Your task to perform on an android device: Open Google Chrome and click the shortcut for Amazon.com Image 0: 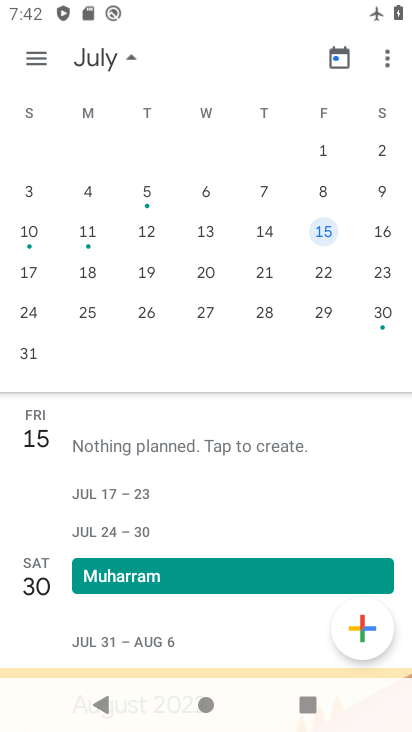
Step 0: press back button
Your task to perform on an android device: Open Google Chrome and click the shortcut for Amazon.com Image 1: 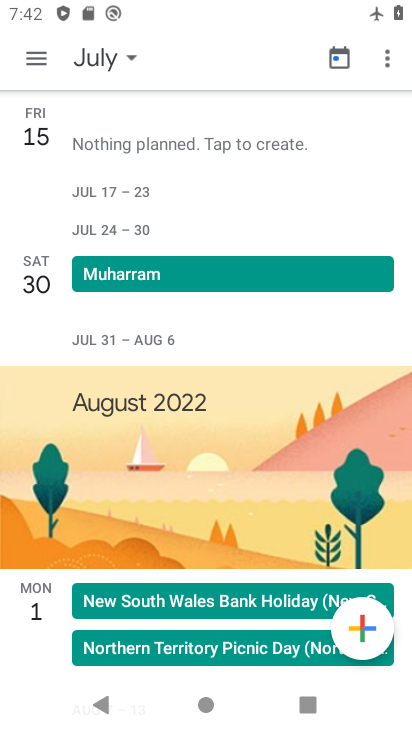
Step 1: press back button
Your task to perform on an android device: Open Google Chrome and click the shortcut for Amazon.com Image 2: 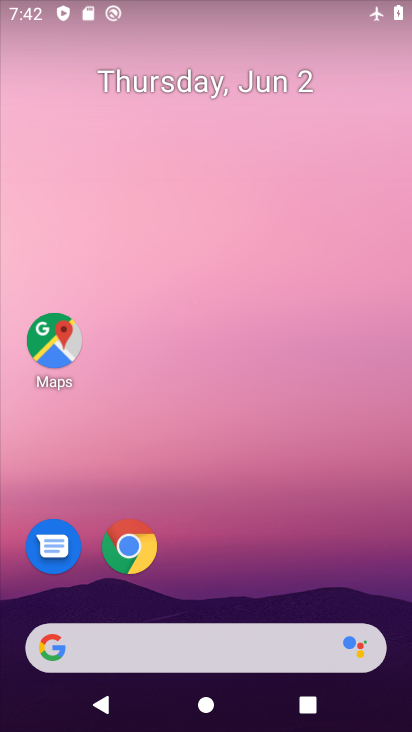
Step 2: drag from (252, 690) to (151, 64)
Your task to perform on an android device: Open Google Chrome and click the shortcut for Amazon.com Image 3: 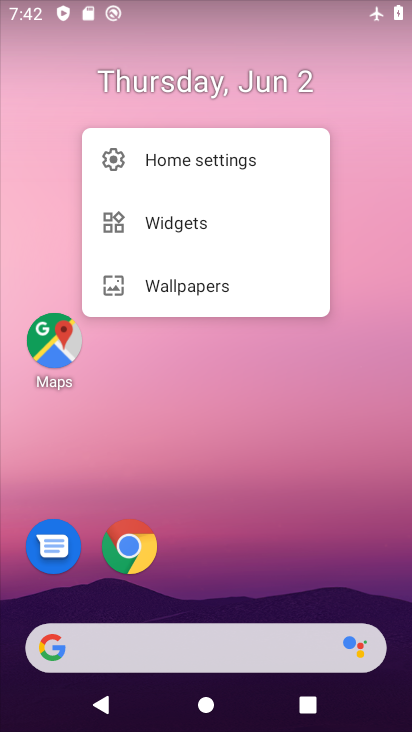
Step 3: drag from (253, 676) to (232, 203)
Your task to perform on an android device: Open Google Chrome and click the shortcut for Amazon.com Image 4: 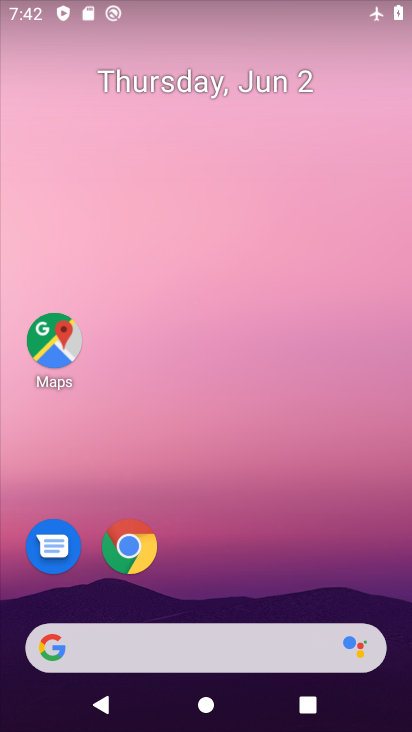
Step 4: drag from (292, 701) to (284, 52)
Your task to perform on an android device: Open Google Chrome and click the shortcut for Amazon.com Image 5: 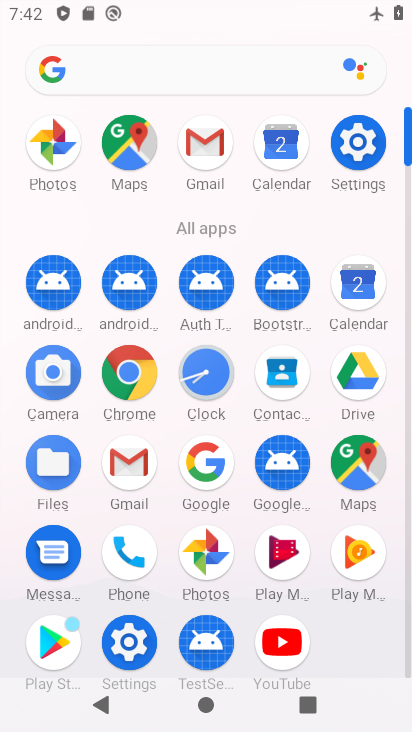
Step 5: drag from (237, 279) to (182, 141)
Your task to perform on an android device: Open Google Chrome and click the shortcut for Amazon.com Image 6: 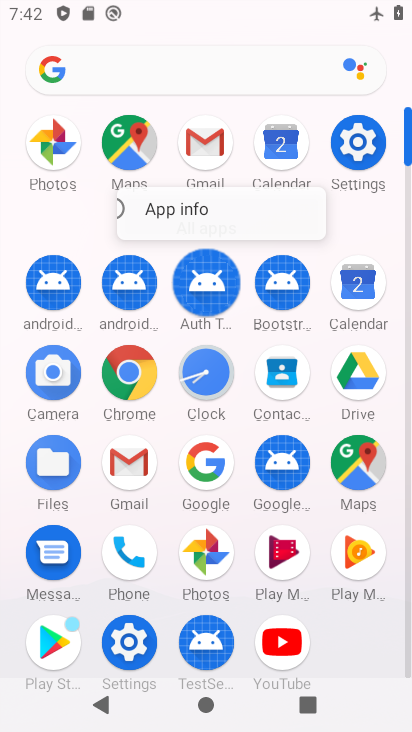
Step 6: drag from (259, 596) to (269, 21)
Your task to perform on an android device: Open Google Chrome and click the shortcut for Amazon.com Image 7: 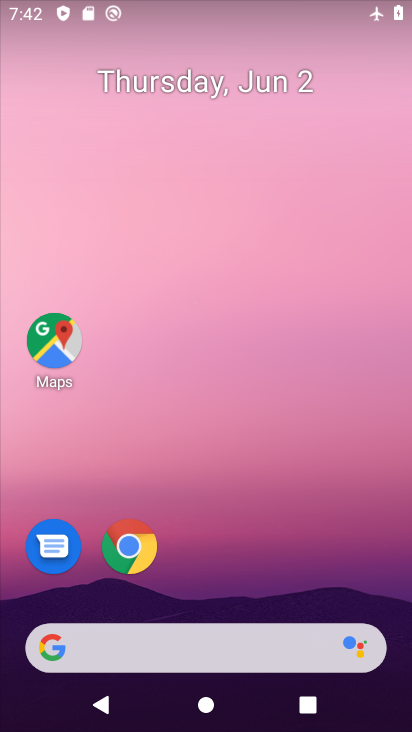
Step 7: click (125, 381)
Your task to perform on an android device: Open Google Chrome and click the shortcut for Amazon.com Image 8: 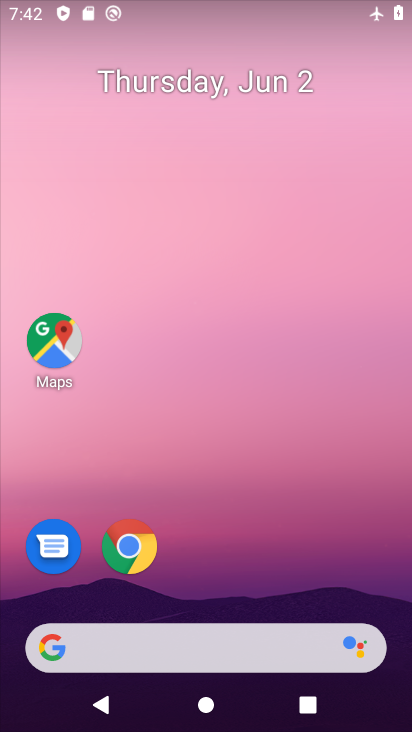
Step 8: drag from (268, 708) to (282, 234)
Your task to perform on an android device: Open Google Chrome and click the shortcut for Amazon.com Image 9: 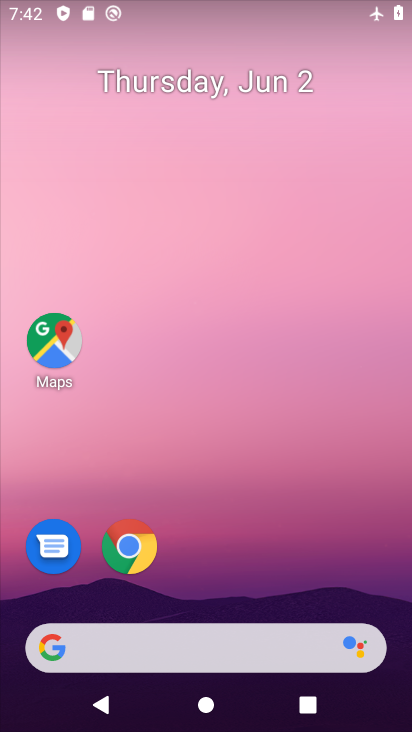
Step 9: drag from (238, 707) to (115, 174)
Your task to perform on an android device: Open Google Chrome and click the shortcut for Amazon.com Image 10: 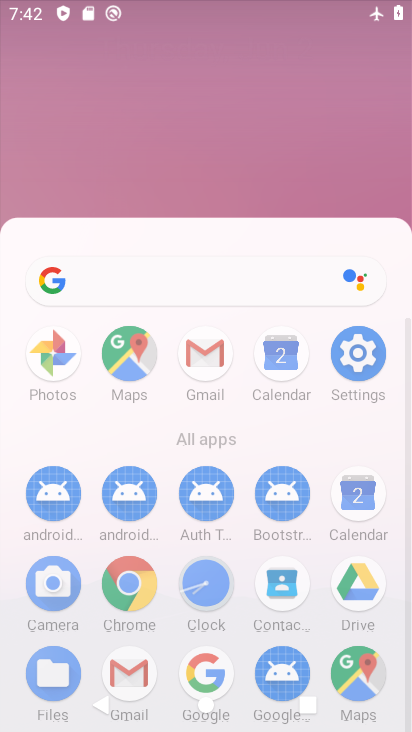
Step 10: drag from (185, 537) to (133, 223)
Your task to perform on an android device: Open Google Chrome and click the shortcut for Amazon.com Image 11: 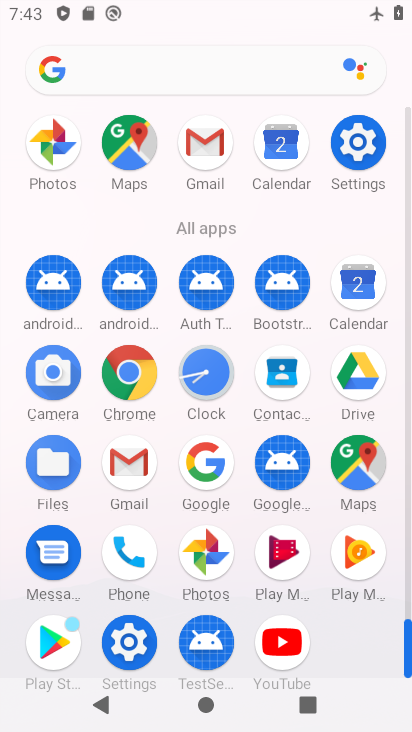
Step 11: drag from (267, 613) to (196, 118)
Your task to perform on an android device: Open Google Chrome and click the shortcut for Amazon.com Image 12: 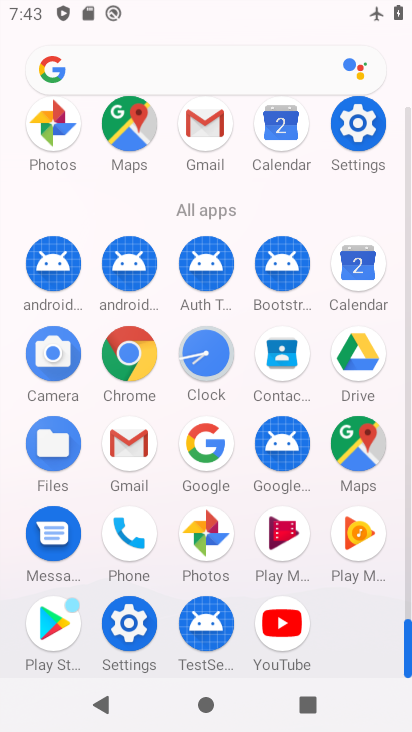
Step 12: drag from (215, 422) to (212, 44)
Your task to perform on an android device: Open Google Chrome and click the shortcut for Amazon.com Image 13: 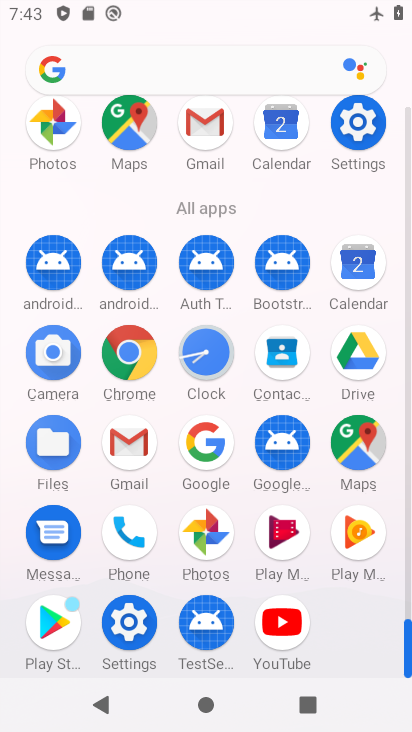
Step 13: click (123, 578)
Your task to perform on an android device: Open Google Chrome and click the shortcut for Amazon.com Image 14: 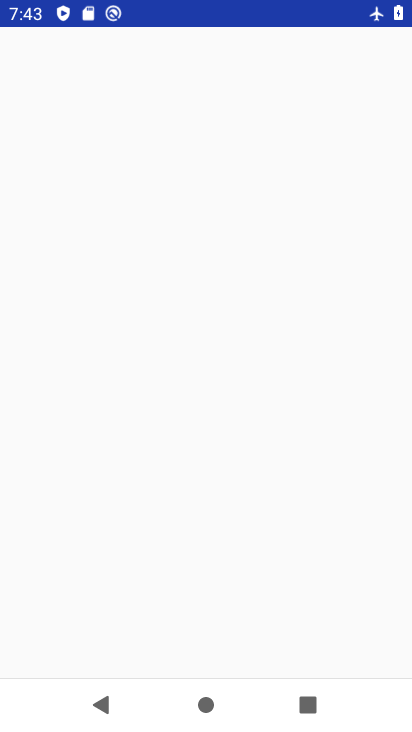
Step 14: click (138, 379)
Your task to perform on an android device: Open Google Chrome and click the shortcut for Amazon.com Image 15: 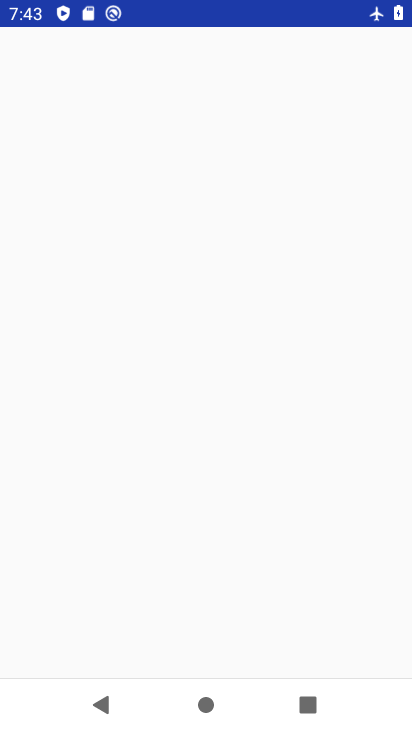
Step 15: click (128, 377)
Your task to perform on an android device: Open Google Chrome and click the shortcut for Amazon.com Image 16: 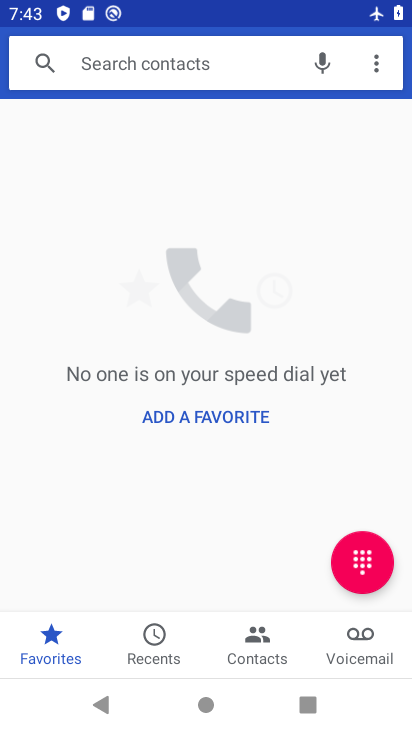
Step 16: click (125, 350)
Your task to perform on an android device: Open Google Chrome and click the shortcut for Amazon.com Image 17: 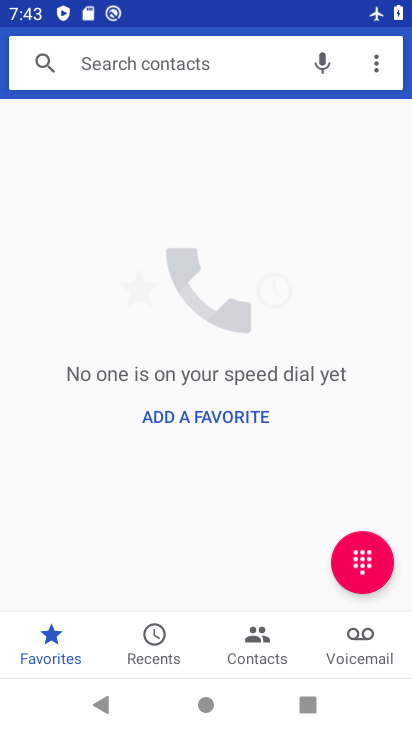
Step 17: press back button
Your task to perform on an android device: Open Google Chrome and click the shortcut for Amazon.com Image 18: 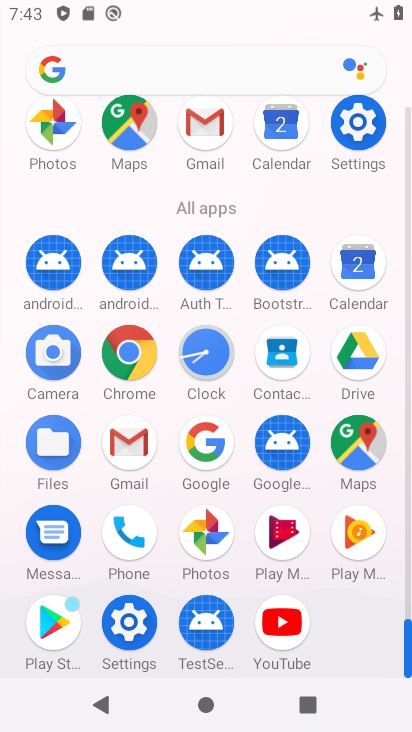
Step 18: click (134, 344)
Your task to perform on an android device: Open Google Chrome and click the shortcut for Amazon.com Image 19: 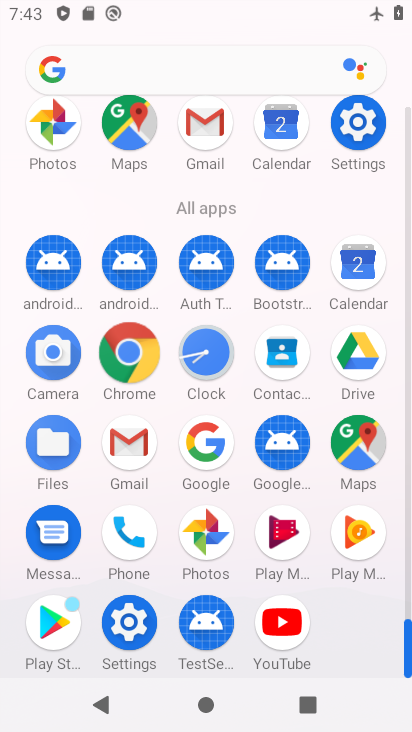
Step 19: click (132, 346)
Your task to perform on an android device: Open Google Chrome and click the shortcut for Amazon.com Image 20: 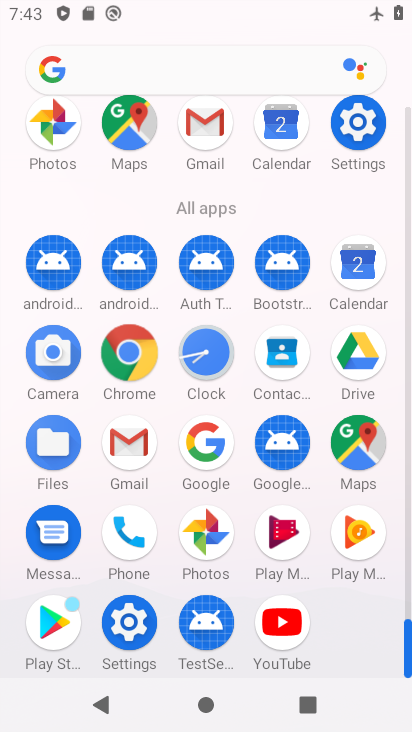
Step 20: click (136, 344)
Your task to perform on an android device: Open Google Chrome and click the shortcut for Amazon.com Image 21: 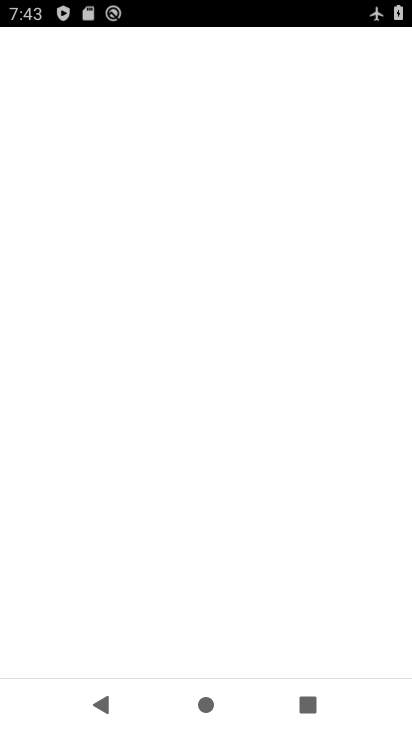
Step 21: click (139, 347)
Your task to perform on an android device: Open Google Chrome and click the shortcut for Amazon.com Image 22: 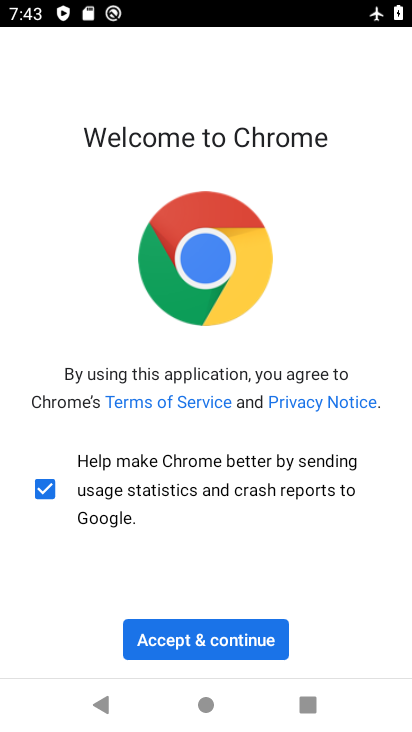
Step 22: click (212, 626)
Your task to perform on an android device: Open Google Chrome and click the shortcut for Amazon.com Image 23: 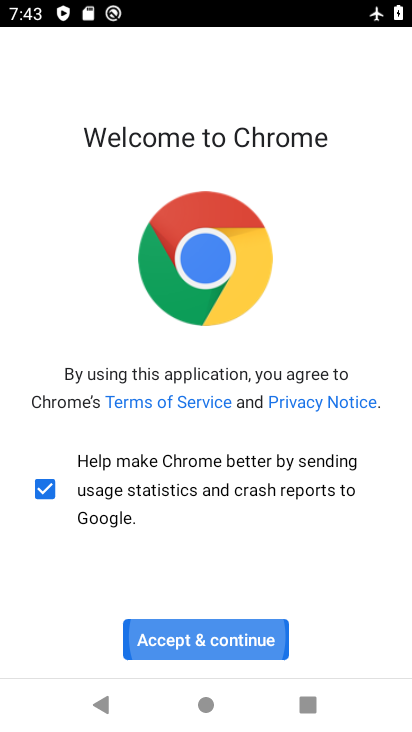
Step 23: click (223, 624)
Your task to perform on an android device: Open Google Chrome and click the shortcut for Amazon.com Image 24: 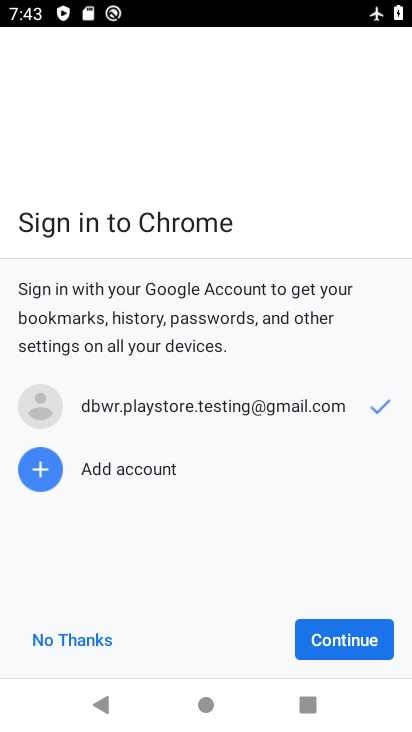
Step 24: click (220, 623)
Your task to perform on an android device: Open Google Chrome and click the shortcut for Amazon.com Image 25: 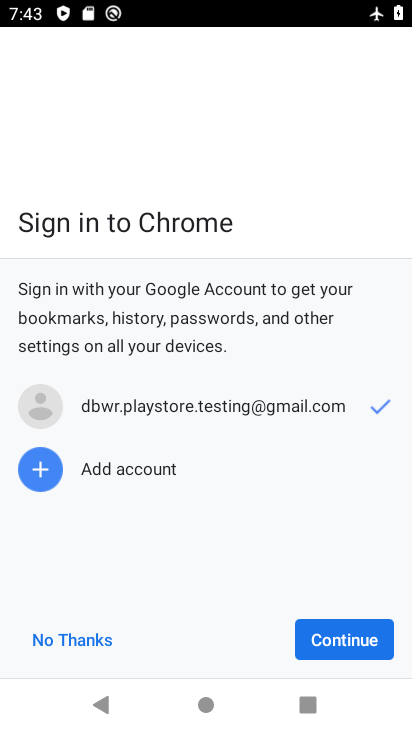
Step 25: click (217, 624)
Your task to perform on an android device: Open Google Chrome and click the shortcut for Amazon.com Image 26: 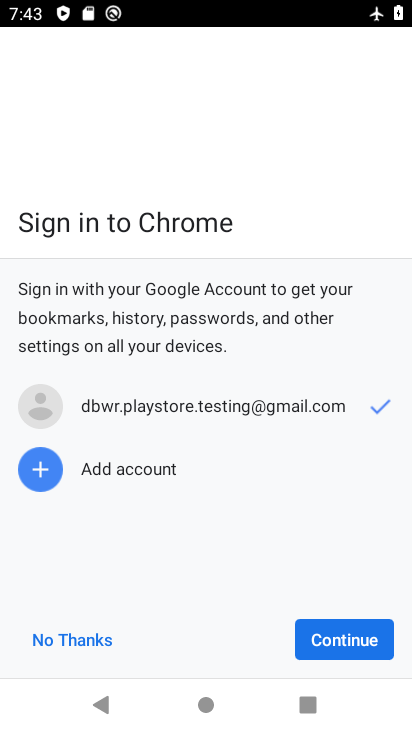
Step 26: click (210, 630)
Your task to perform on an android device: Open Google Chrome and click the shortcut for Amazon.com Image 27: 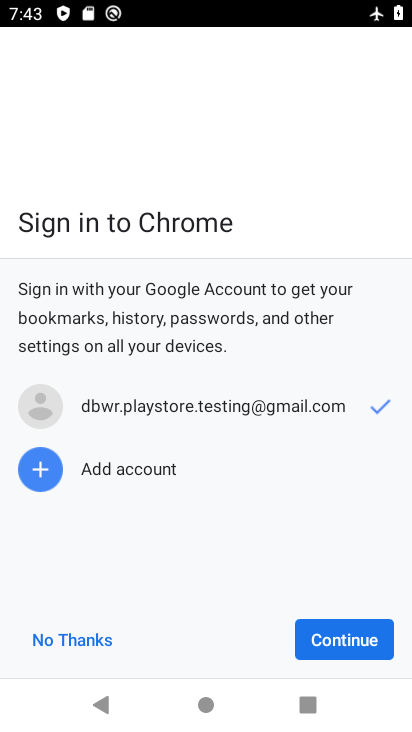
Step 27: click (311, 638)
Your task to perform on an android device: Open Google Chrome and click the shortcut for Amazon.com Image 28: 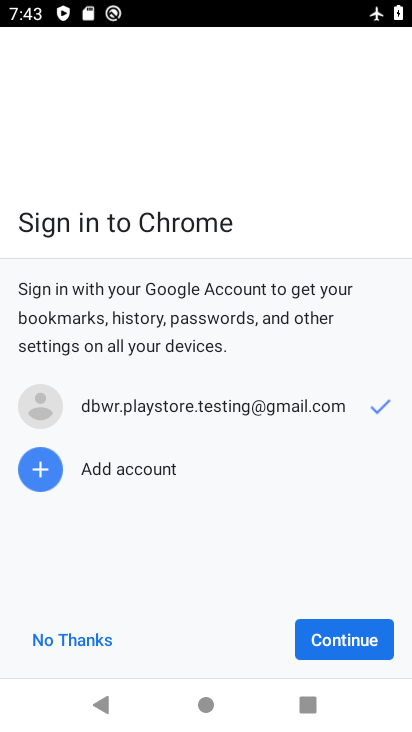
Step 28: click (313, 638)
Your task to perform on an android device: Open Google Chrome and click the shortcut for Amazon.com Image 29: 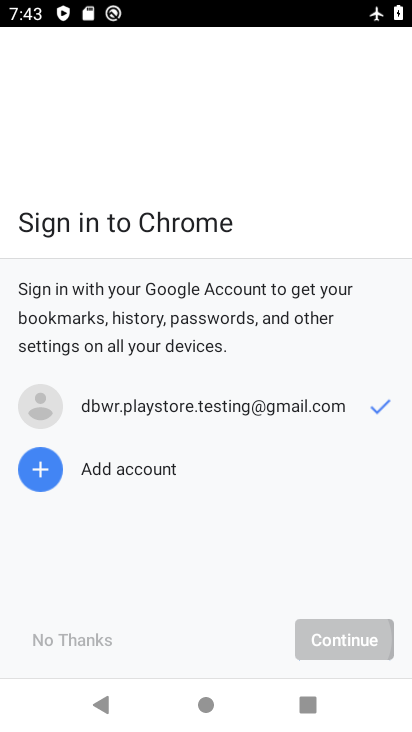
Step 29: click (320, 633)
Your task to perform on an android device: Open Google Chrome and click the shortcut for Amazon.com Image 30: 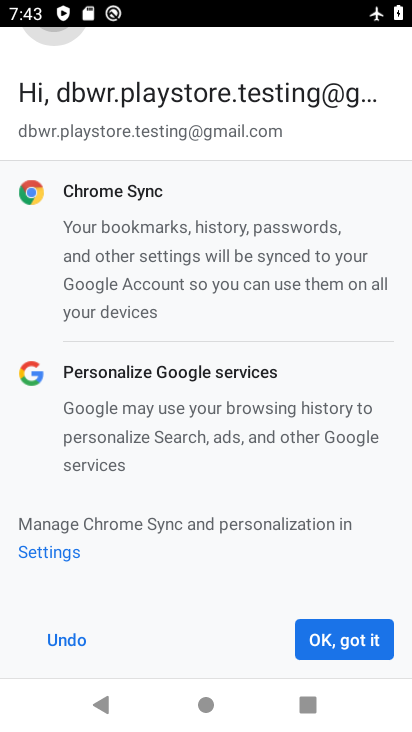
Step 30: click (336, 629)
Your task to perform on an android device: Open Google Chrome and click the shortcut for Amazon.com Image 31: 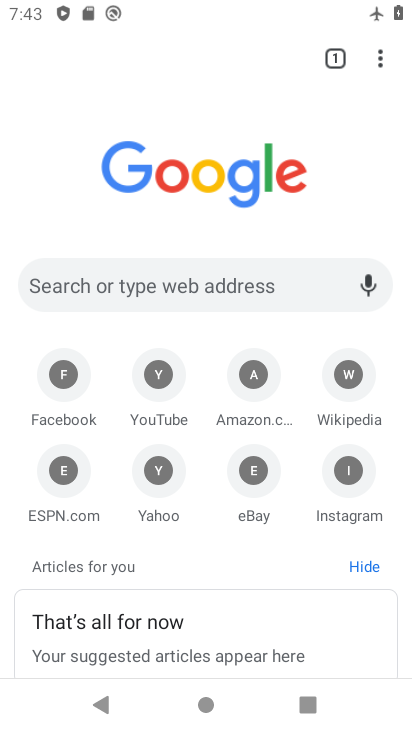
Step 31: click (251, 381)
Your task to perform on an android device: Open Google Chrome and click the shortcut for Amazon.com Image 32: 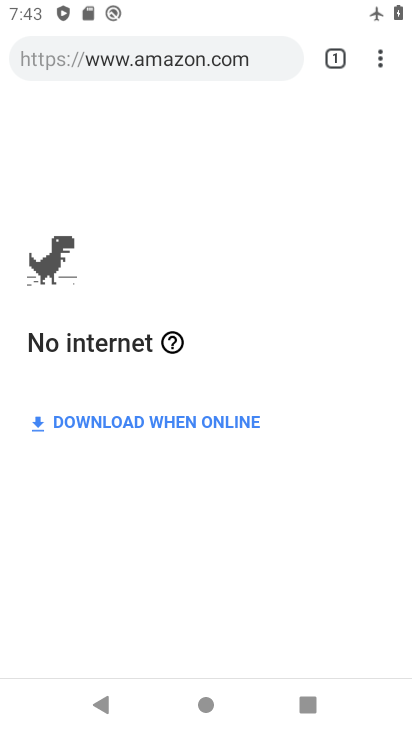
Step 32: task complete